Your task to perform on an android device: turn off smart reply in the gmail app Image 0: 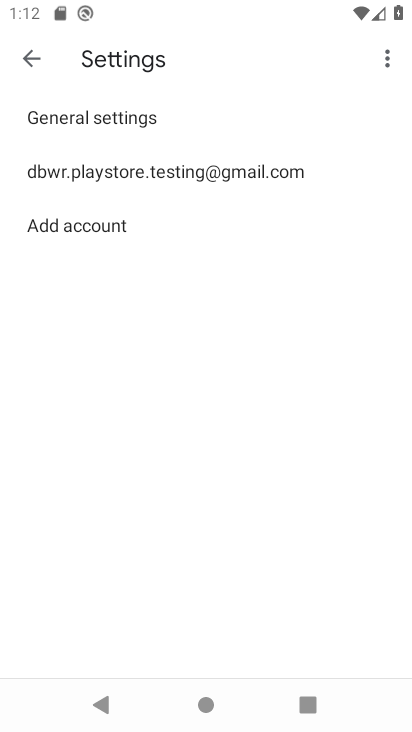
Step 0: click (113, 168)
Your task to perform on an android device: turn off smart reply in the gmail app Image 1: 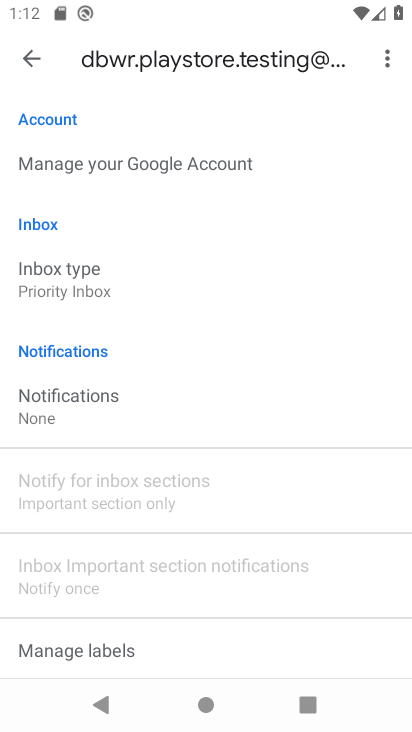
Step 1: task complete